Your task to perform on an android device: turn off wifi Image 0: 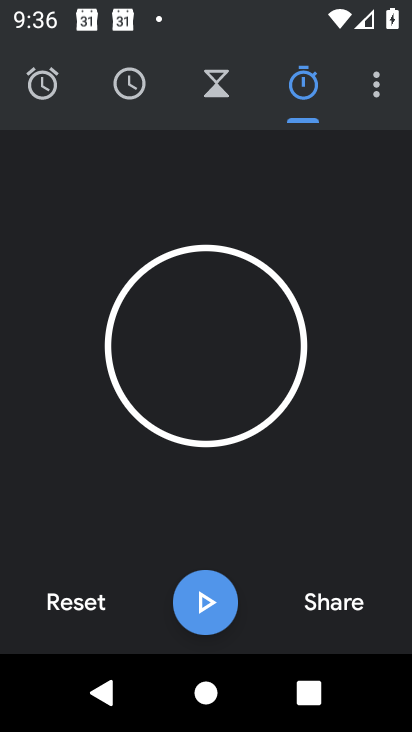
Step 0: press home button
Your task to perform on an android device: turn off wifi Image 1: 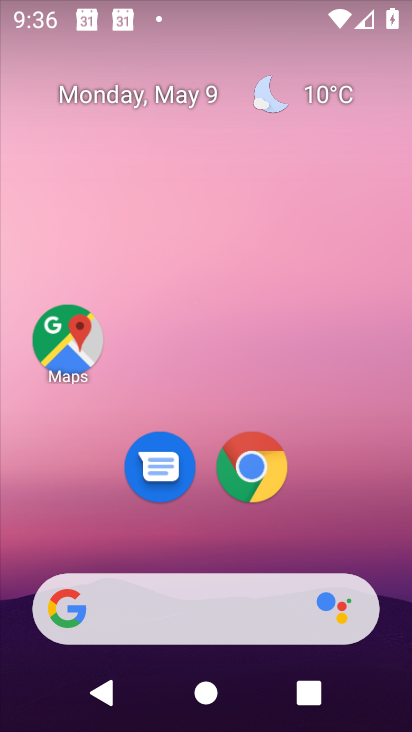
Step 1: drag from (385, 541) to (314, 14)
Your task to perform on an android device: turn off wifi Image 2: 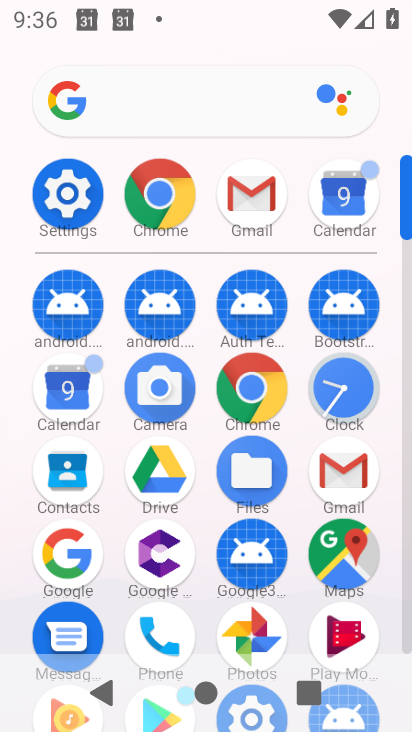
Step 2: click (57, 192)
Your task to perform on an android device: turn off wifi Image 3: 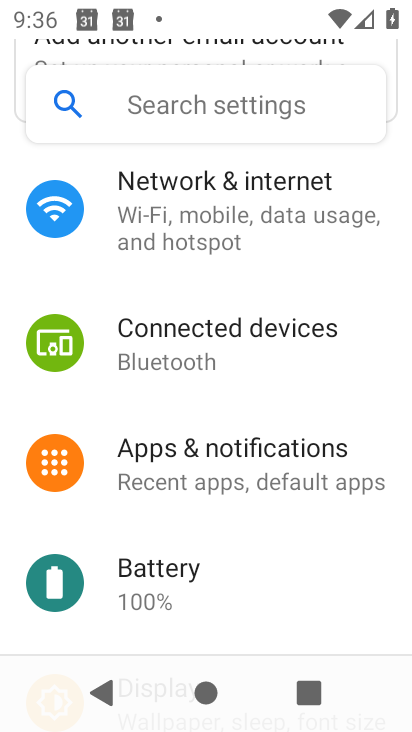
Step 3: click (206, 208)
Your task to perform on an android device: turn off wifi Image 4: 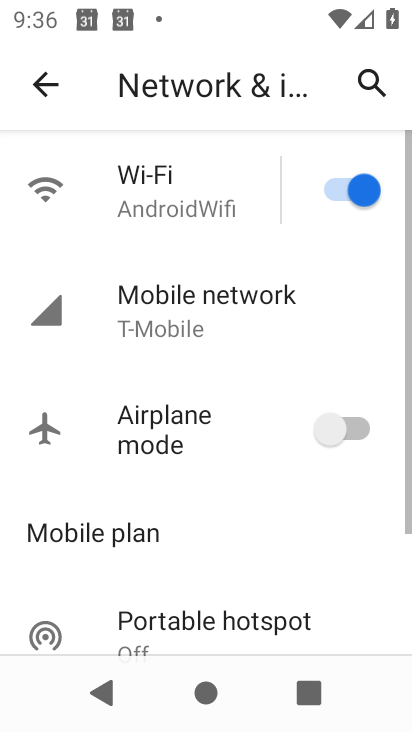
Step 4: click (377, 205)
Your task to perform on an android device: turn off wifi Image 5: 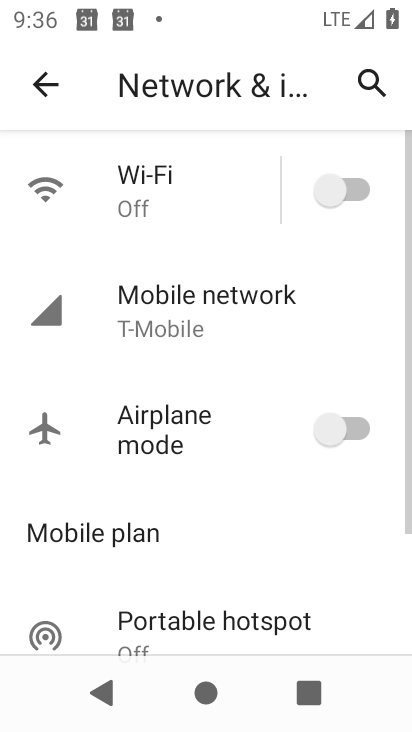
Step 5: task complete